Your task to perform on an android device: change timer sound Image 0: 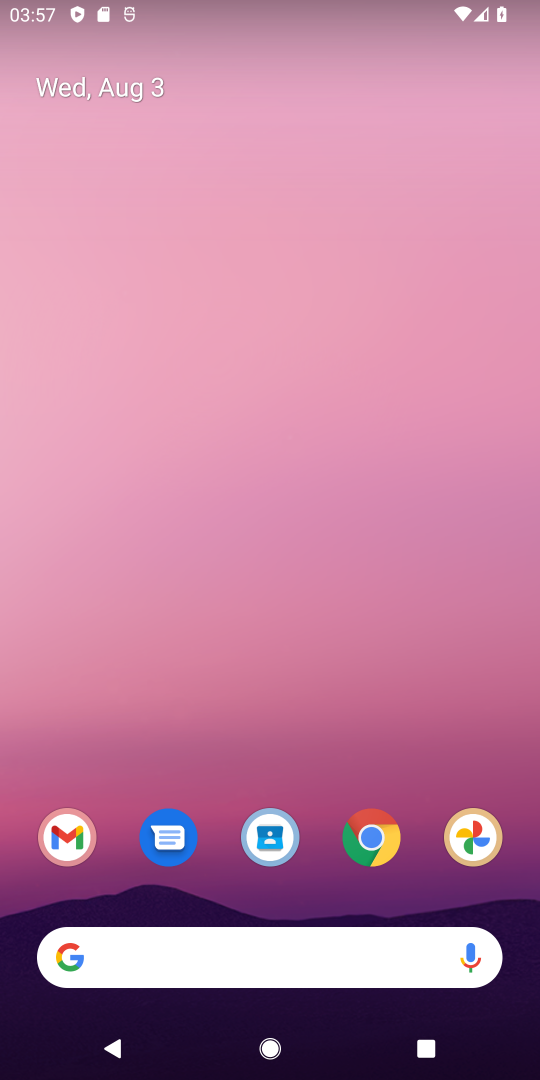
Step 0: drag from (440, 882) to (411, 151)
Your task to perform on an android device: change timer sound Image 1: 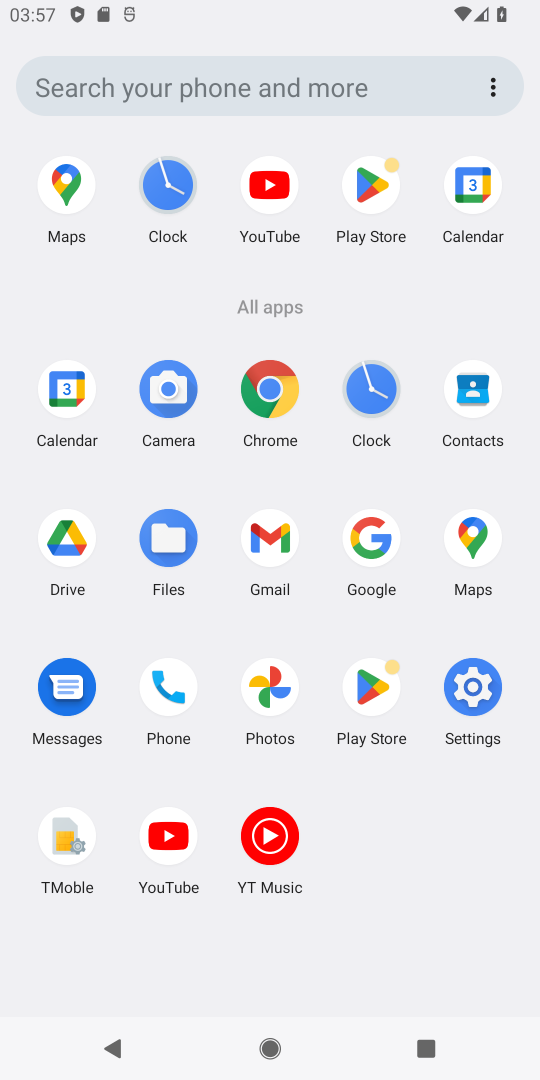
Step 1: click (372, 390)
Your task to perform on an android device: change timer sound Image 2: 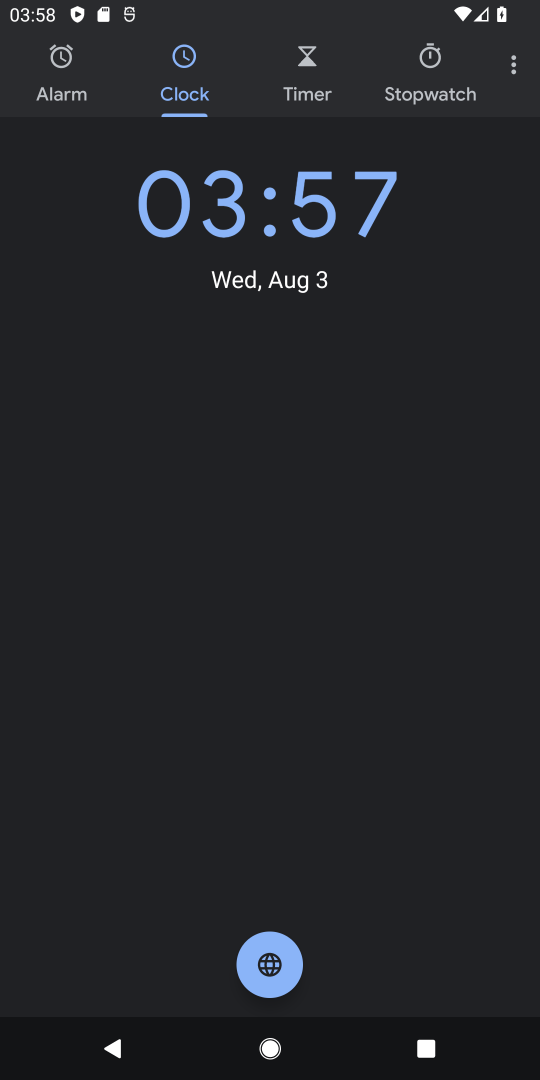
Step 2: click (506, 72)
Your task to perform on an android device: change timer sound Image 3: 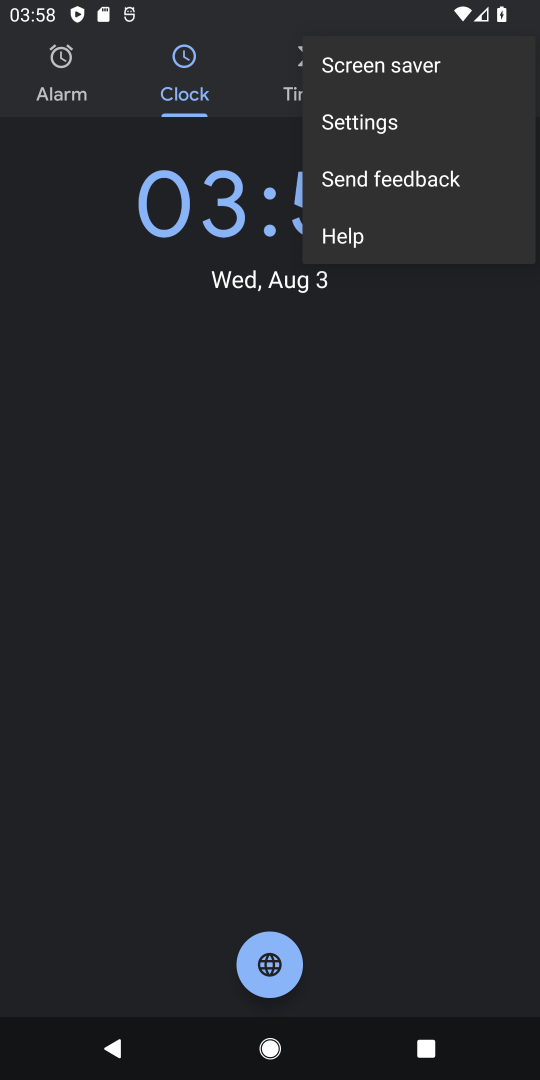
Step 3: click (352, 115)
Your task to perform on an android device: change timer sound Image 4: 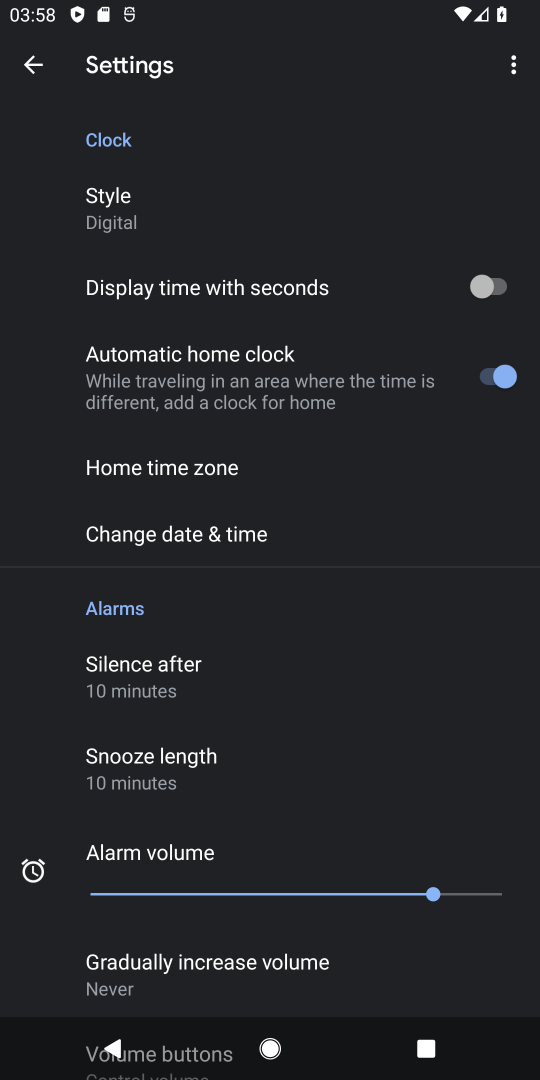
Step 4: drag from (215, 830) to (222, 326)
Your task to perform on an android device: change timer sound Image 5: 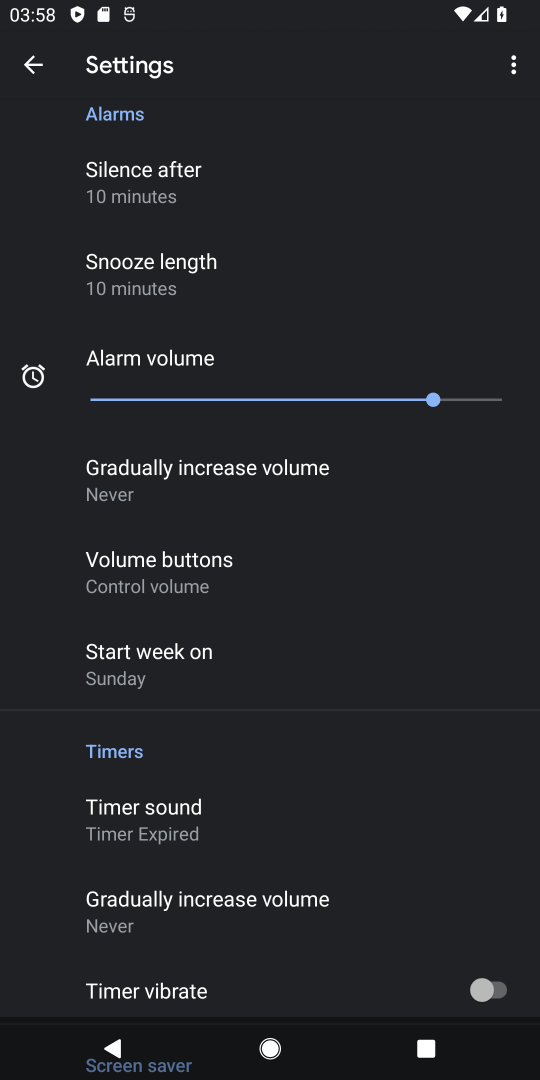
Step 5: click (149, 813)
Your task to perform on an android device: change timer sound Image 6: 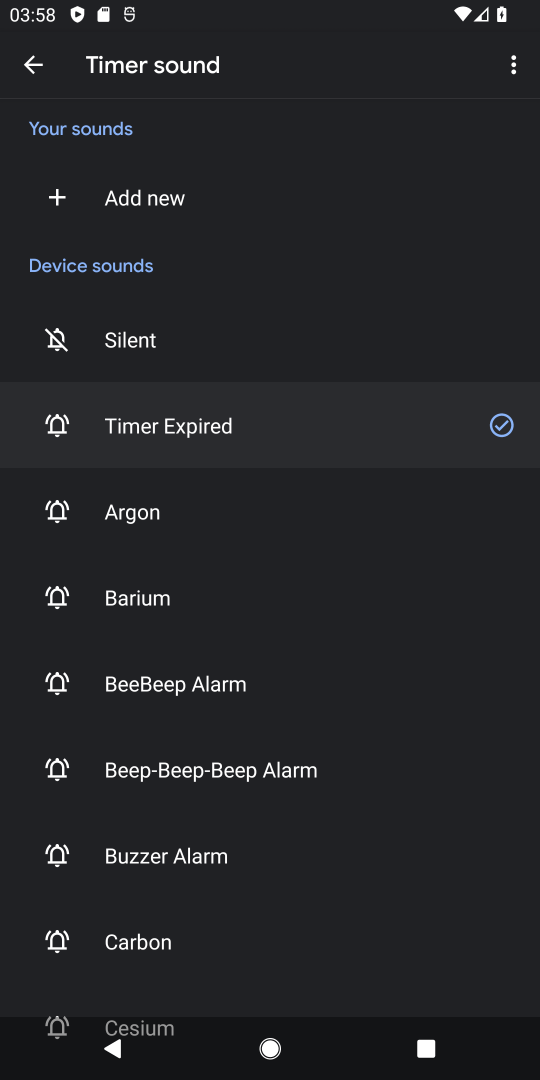
Step 6: click (159, 687)
Your task to perform on an android device: change timer sound Image 7: 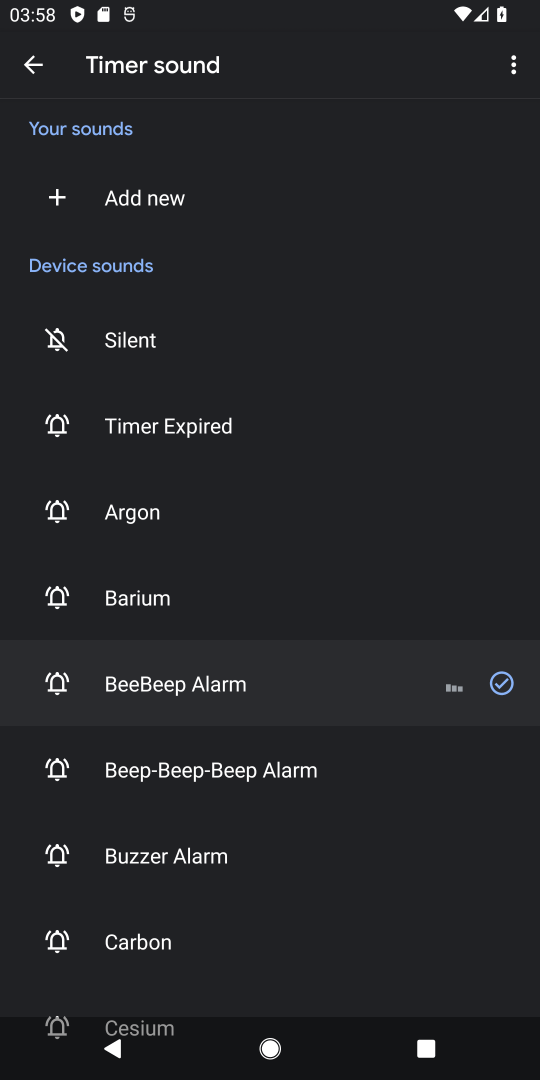
Step 7: task complete